Your task to perform on an android device: see sites visited before in the chrome app Image 0: 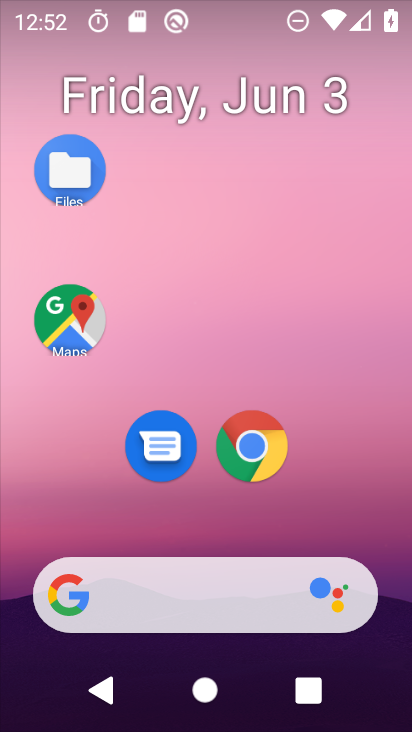
Step 0: drag from (229, 479) to (168, 193)
Your task to perform on an android device: see sites visited before in the chrome app Image 1: 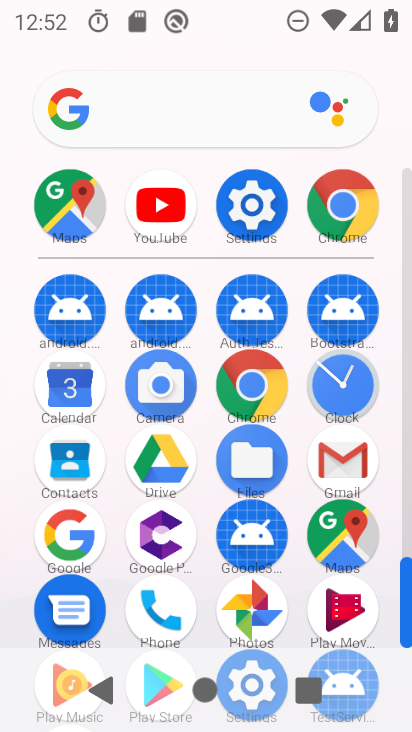
Step 1: click (352, 200)
Your task to perform on an android device: see sites visited before in the chrome app Image 2: 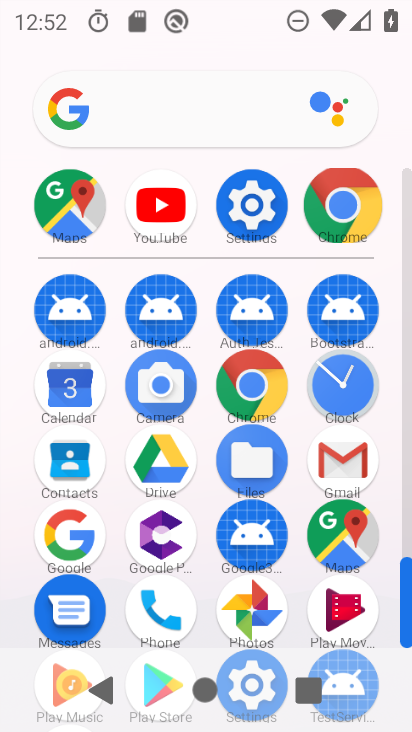
Step 2: click (350, 200)
Your task to perform on an android device: see sites visited before in the chrome app Image 3: 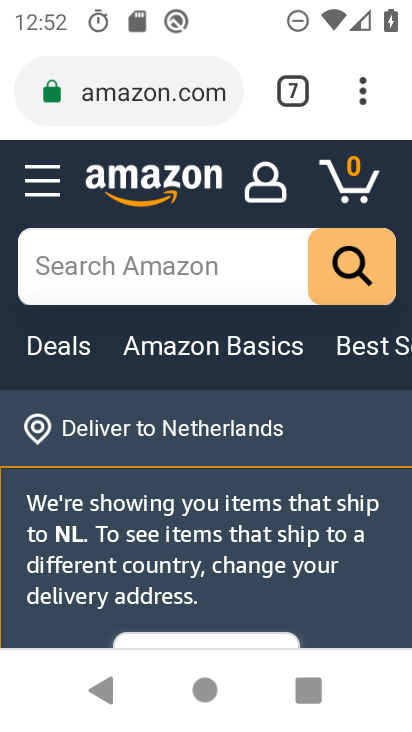
Step 3: drag from (357, 99) to (106, 434)
Your task to perform on an android device: see sites visited before in the chrome app Image 4: 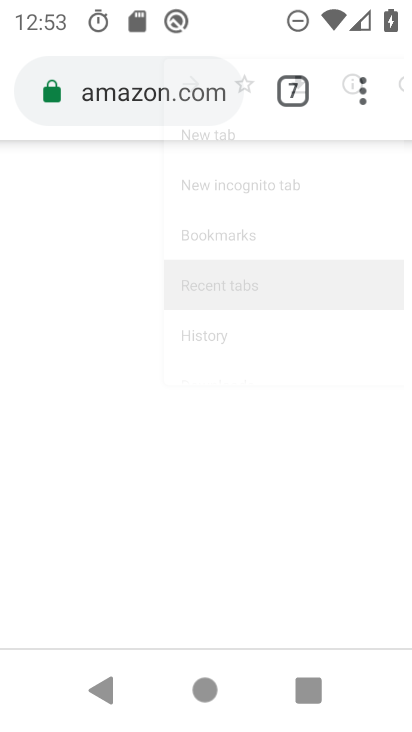
Step 4: click (106, 434)
Your task to perform on an android device: see sites visited before in the chrome app Image 5: 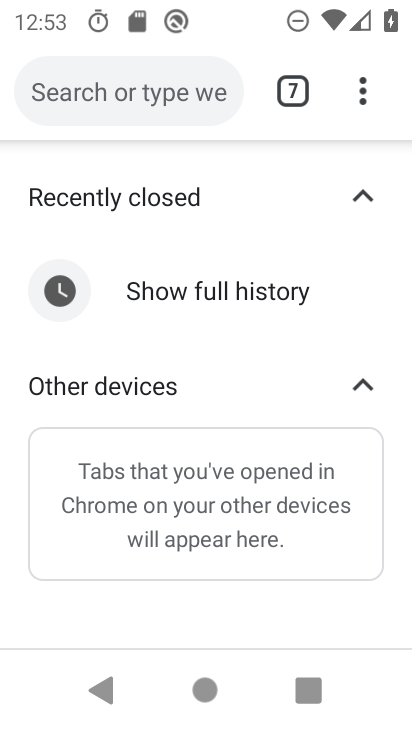
Step 5: task complete